Your task to perform on an android device: Open Android settings Image 0: 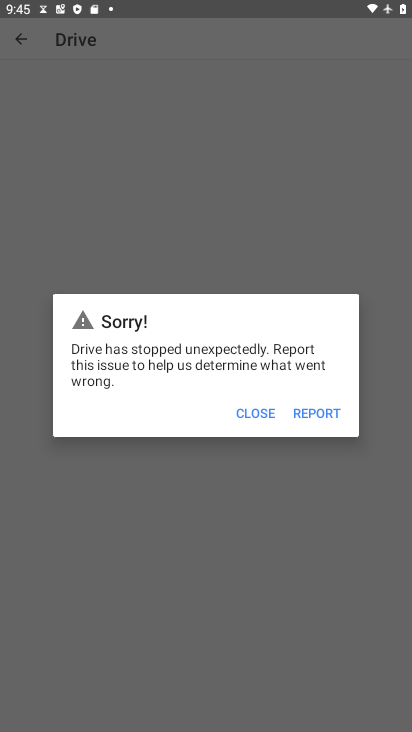
Step 0: press home button
Your task to perform on an android device: Open Android settings Image 1: 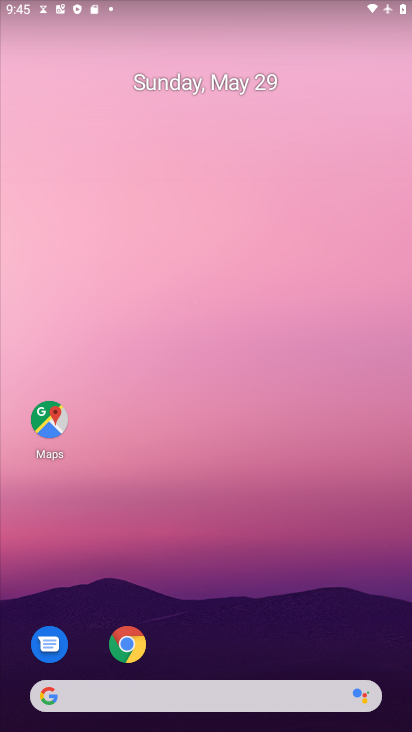
Step 1: drag from (299, 628) to (267, 439)
Your task to perform on an android device: Open Android settings Image 2: 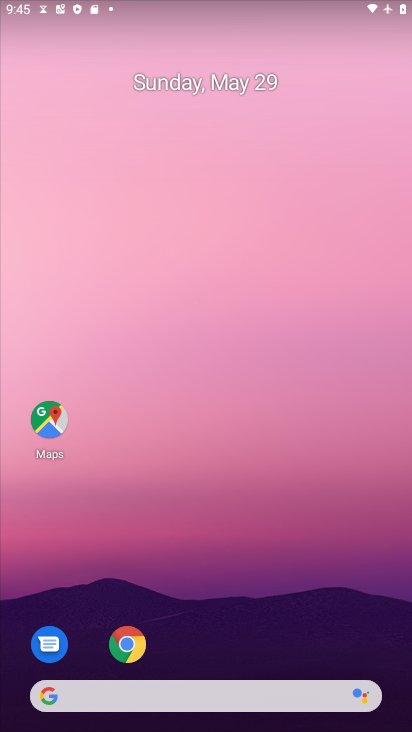
Step 2: drag from (270, 631) to (216, 163)
Your task to perform on an android device: Open Android settings Image 3: 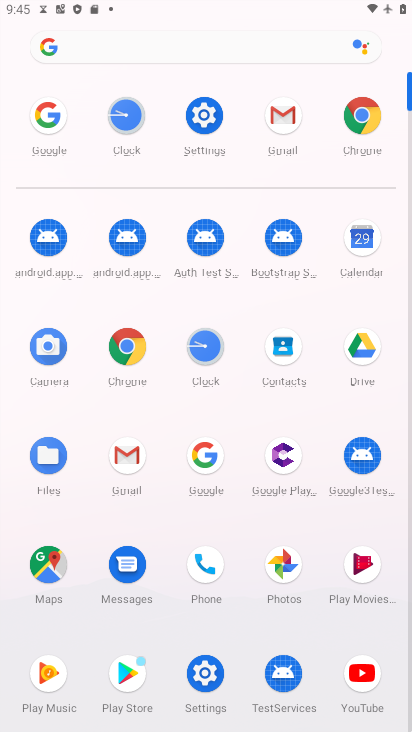
Step 3: click (202, 114)
Your task to perform on an android device: Open Android settings Image 4: 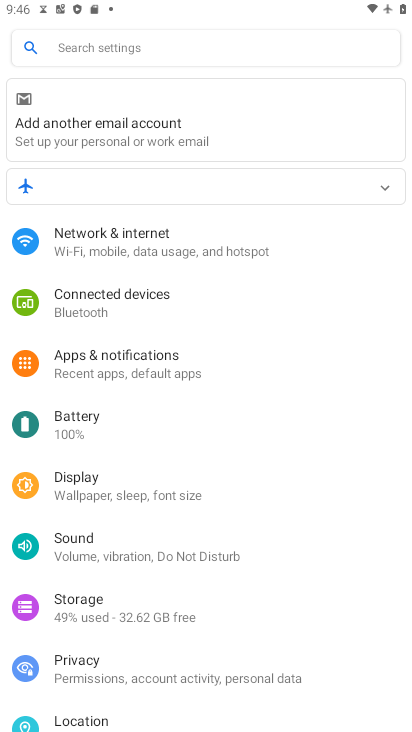
Step 4: task complete